Your task to perform on an android device: turn on bluetooth scan Image 0: 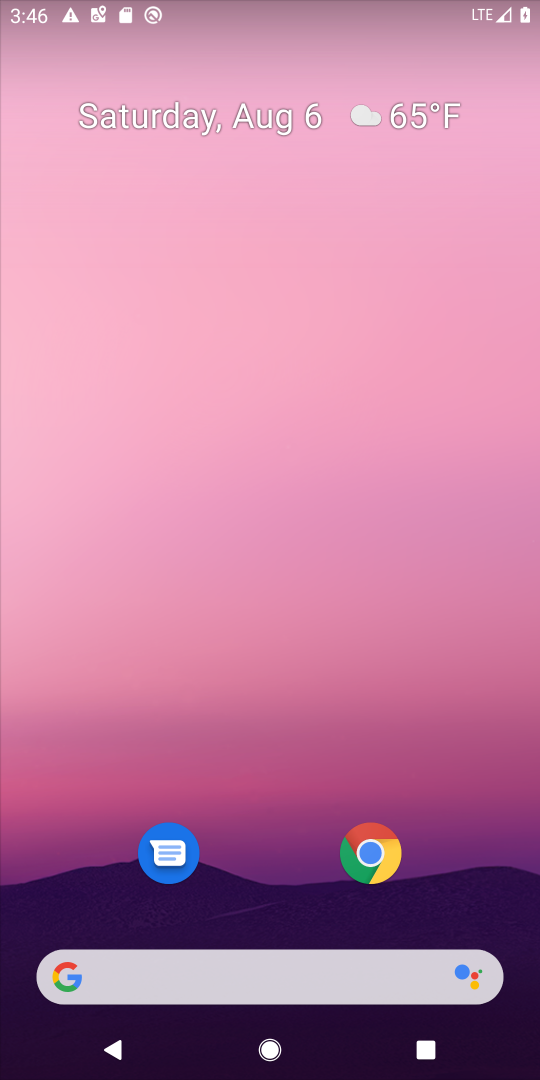
Step 0: drag from (246, 753) to (426, 4)
Your task to perform on an android device: turn on bluetooth scan Image 1: 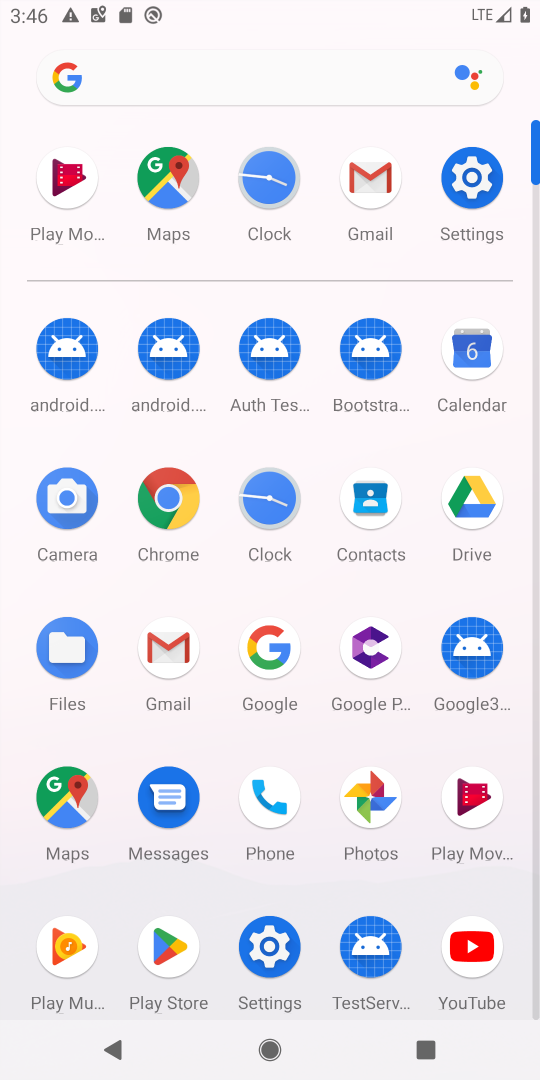
Step 1: click (475, 182)
Your task to perform on an android device: turn on bluetooth scan Image 2: 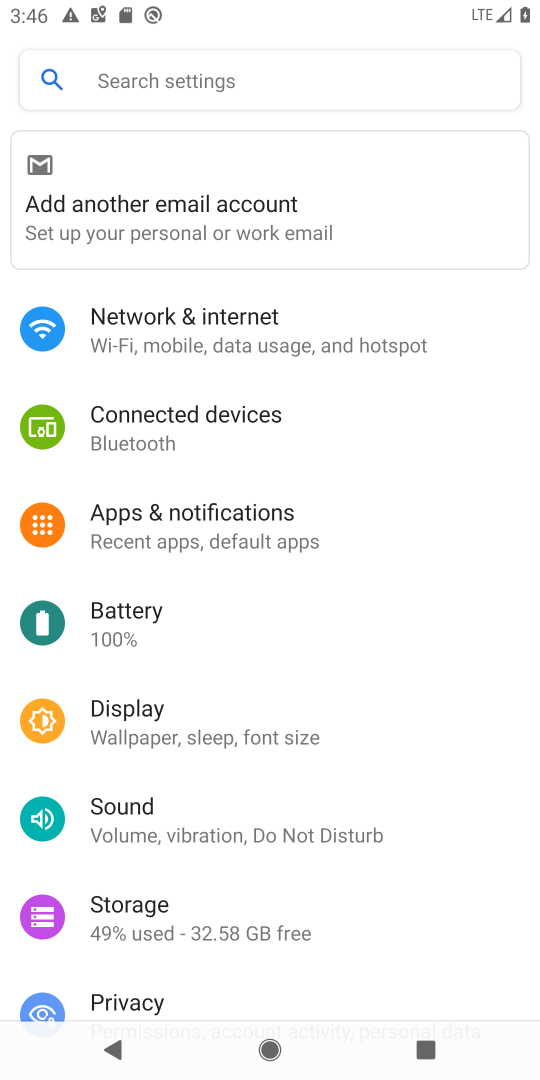
Step 2: click (152, 439)
Your task to perform on an android device: turn on bluetooth scan Image 3: 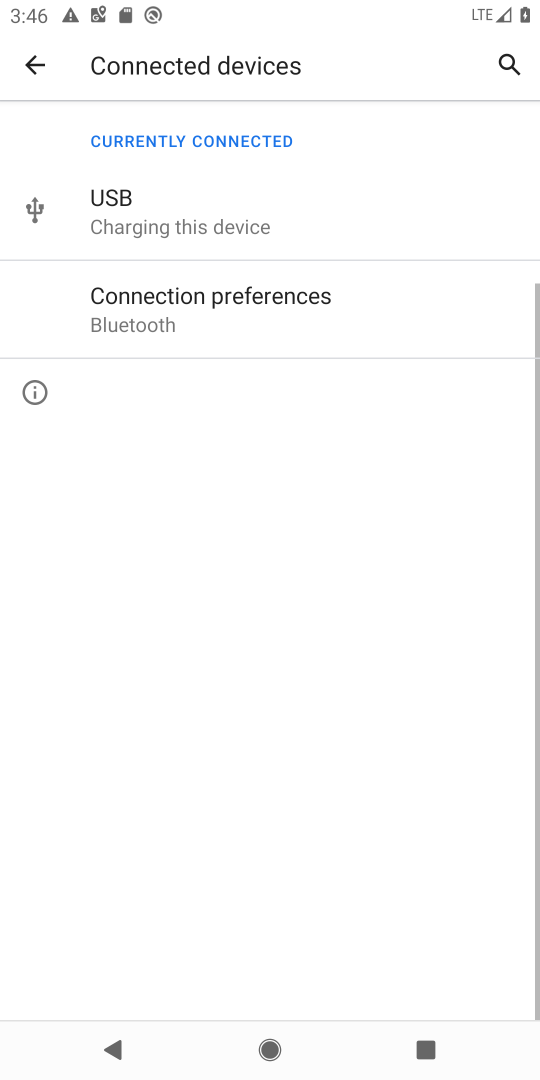
Step 3: click (183, 320)
Your task to perform on an android device: turn on bluetooth scan Image 4: 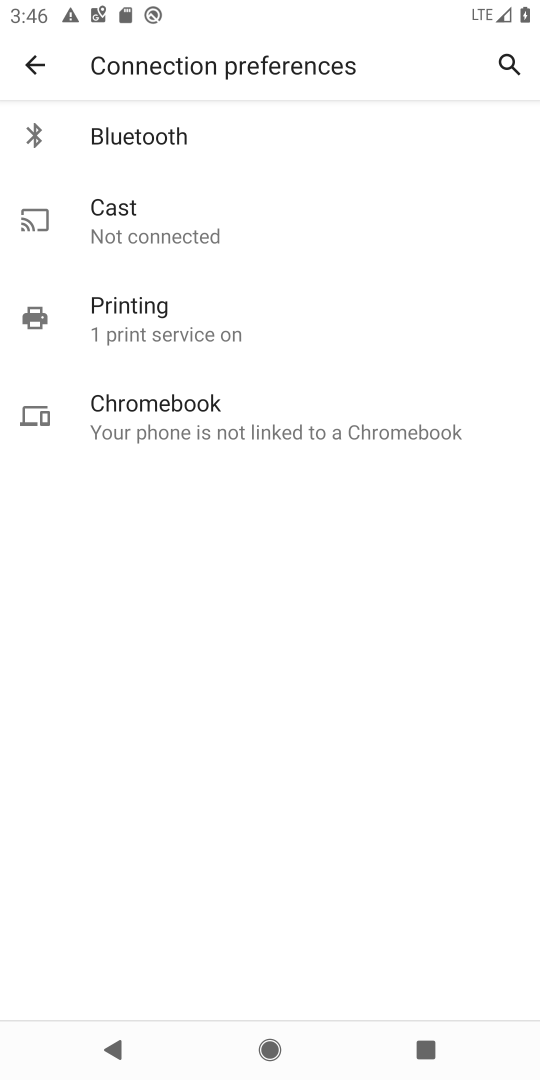
Step 4: click (218, 126)
Your task to perform on an android device: turn on bluetooth scan Image 5: 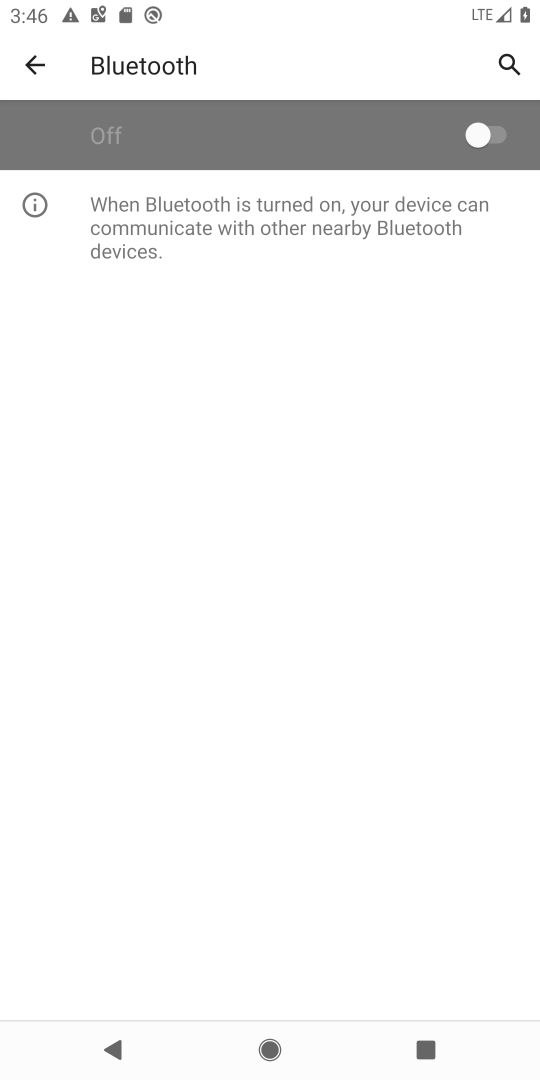
Step 5: click (491, 140)
Your task to perform on an android device: turn on bluetooth scan Image 6: 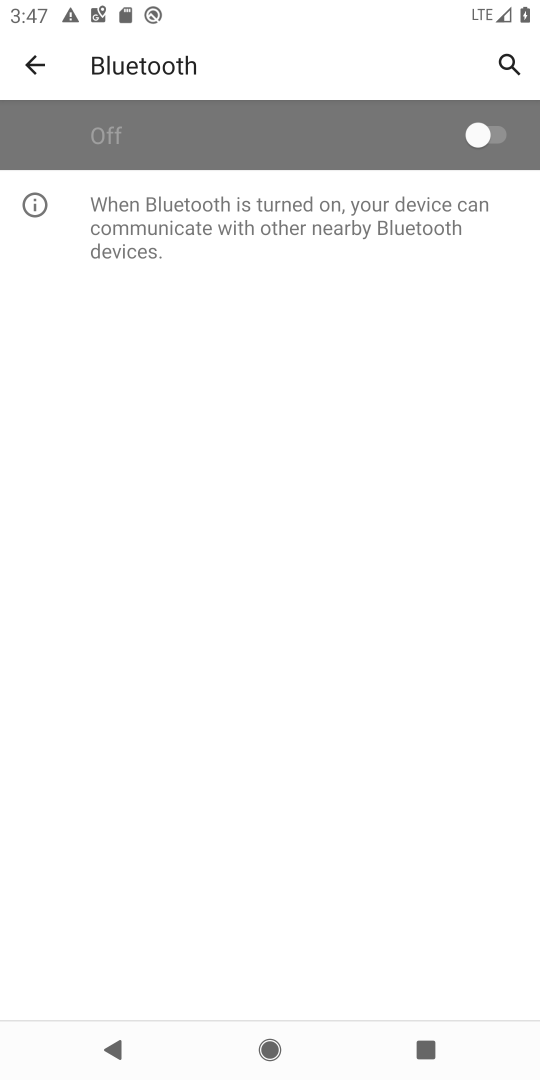
Step 6: task complete